Your task to perform on an android device: change timer sound Image 0: 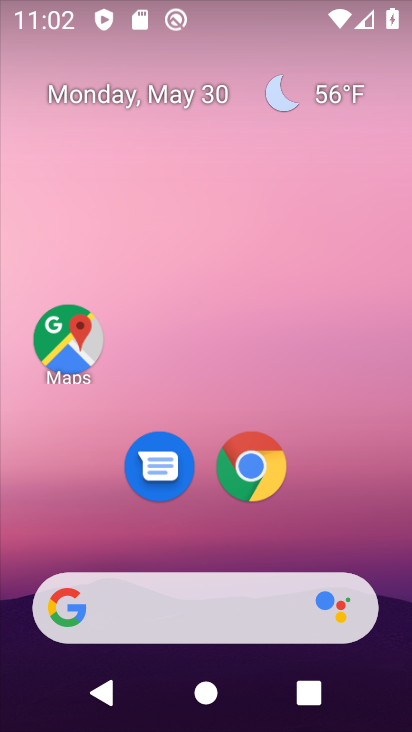
Step 0: drag from (387, 543) to (365, 90)
Your task to perform on an android device: change timer sound Image 1: 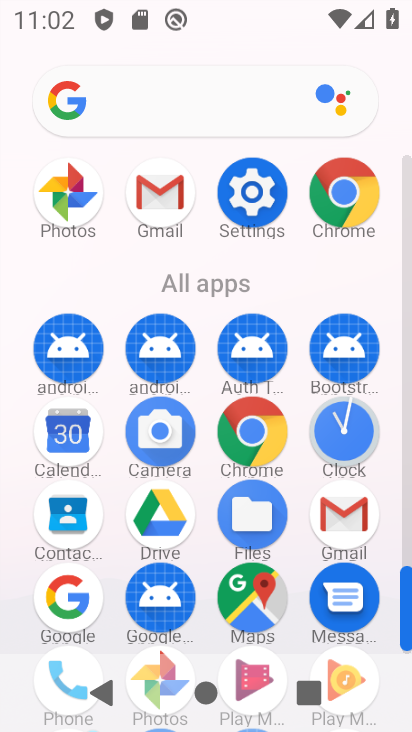
Step 1: click (332, 457)
Your task to perform on an android device: change timer sound Image 2: 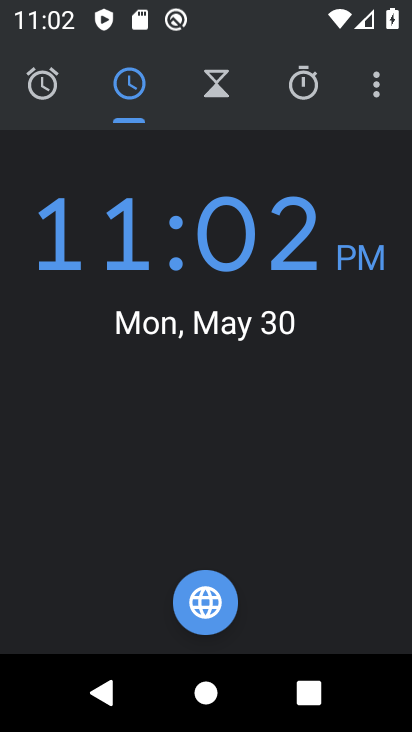
Step 2: click (381, 87)
Your task to perform on an android device: change timer sound Image 3: 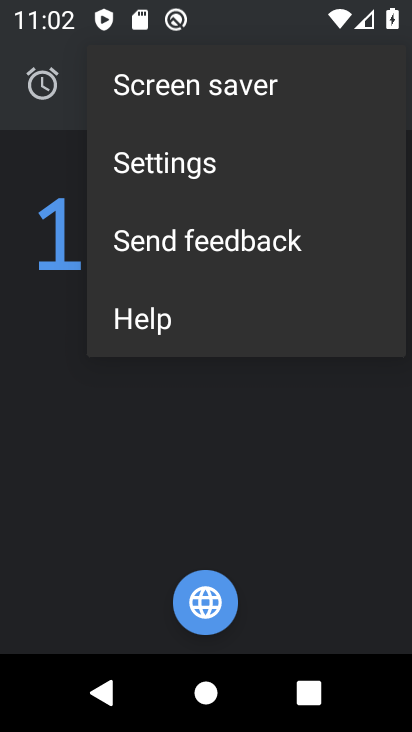
Step 3: click (215, 180)
Your task to perform on an android device: change timer sound Image 4: 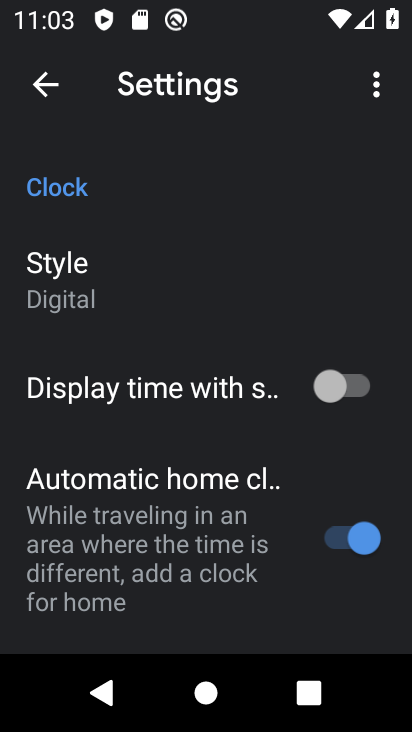
Step 4: drag from (224, 485) to (220, 151)
Your task to perform on an android device: change timer sound Image 5: 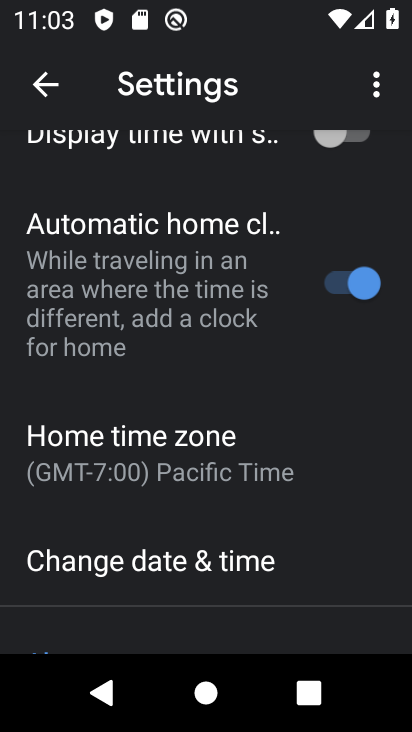
Step 5: drag from (186, 523) to (181, 219)
Your task to perform on an android device: change timer sound Image 6: 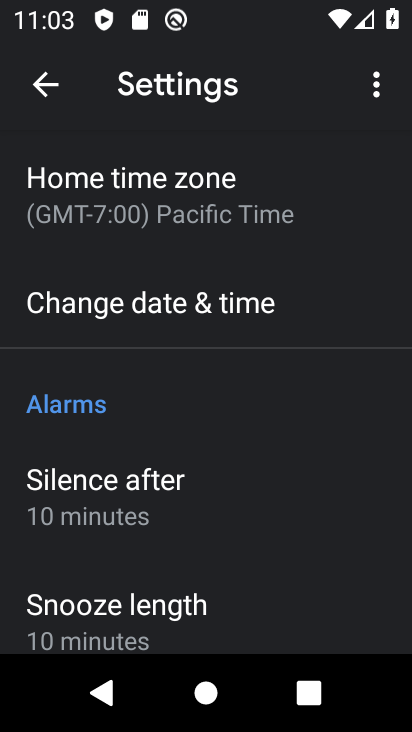
Step 6: drag from (170, 472) to (153, 113)
Your task to perform on an android device: change timer sound Image 7: 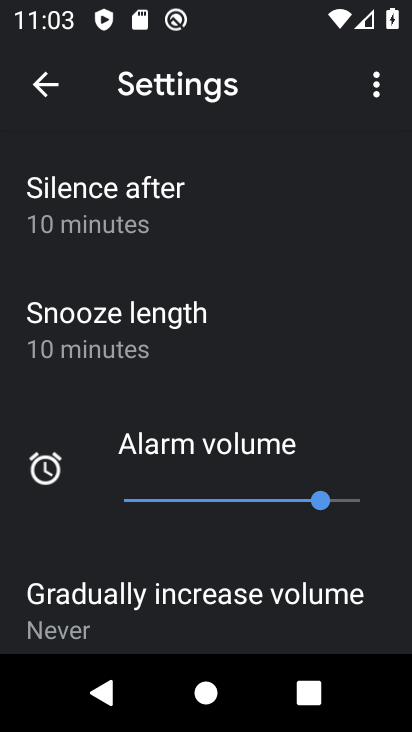
Step 7: drag from (180, 608) to (174, 378)
Your task to perform on an android device: change timer sound Image 8: 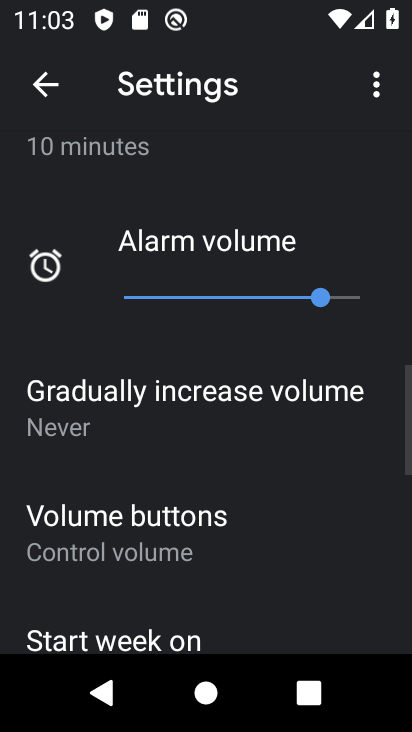
Step 8: drag from (196, 610) to (189, 235)
Your task to perform on an android device: change timer sound Image 9: 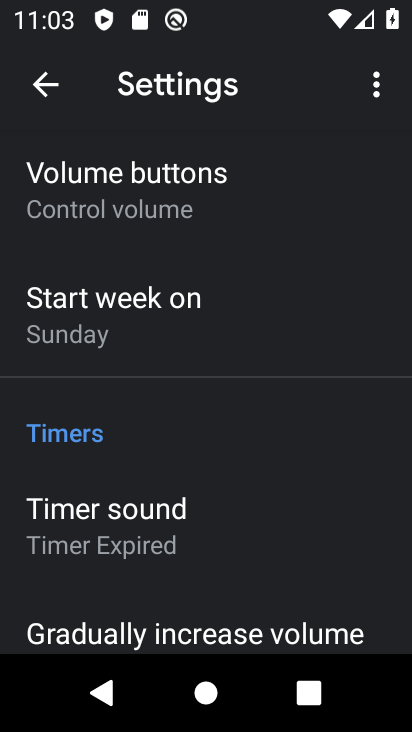
Step 9: click (186, 518)
Your task to perform on an android device: change timer sound Image 10: 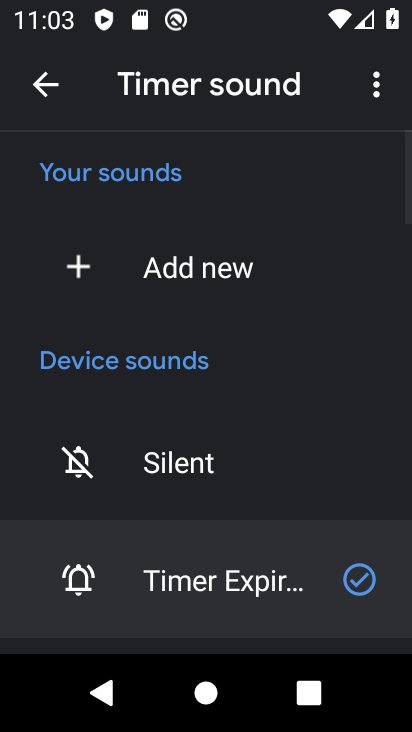
Step 10: task complete